Your task to perform on an android device: turn notification dots off Image 0: 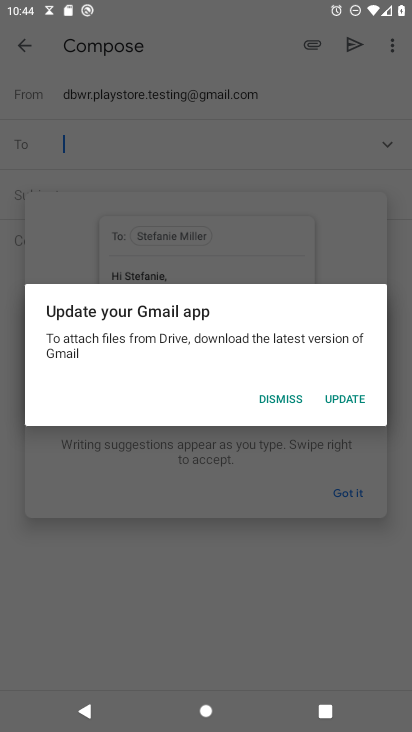
Step 0: press home button
Your task to perform on an android device: turn notification dots off Image 1: 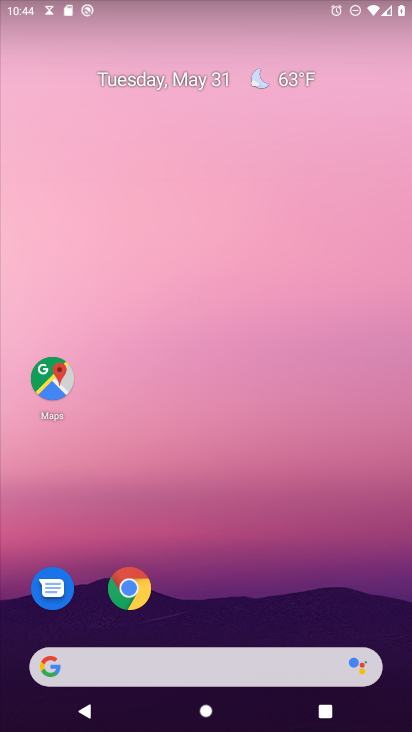
Step 1: drag from (262, 597) to (217, 61)
Your task to perform on an android device: turn notification dots off Image 2: 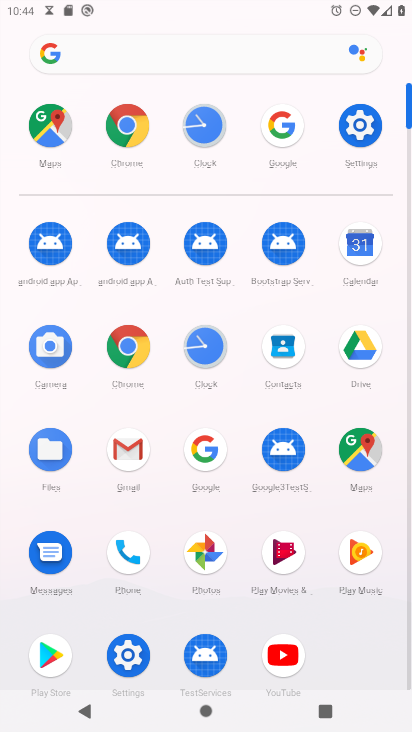
Step 2: click (128, 655)
Your task to perform on an android device: turn notification dots off Image 3: 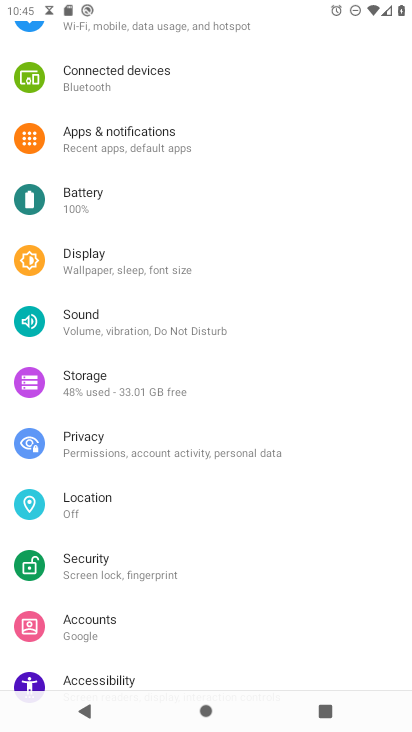
Step 3: drag from (219, 145) to (228, 238)
Your task to perform on an android device: turn notification dots off Image 4: 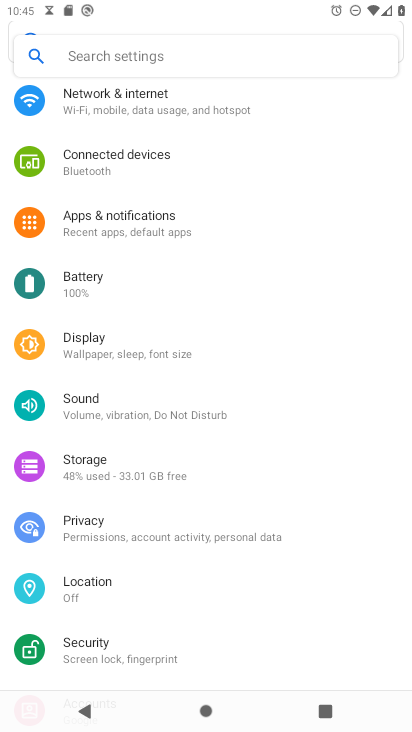
Step 4: drag from (213, 189) to (220, 296)
Your task to perform on an android device: turn notification dots off Image 5: 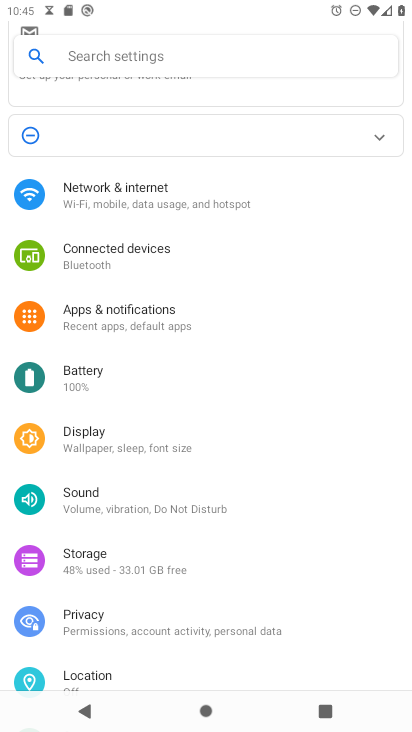
Step 5: click (145, 321)
Your task to perform on an android device: turn notification dots off Image 6: 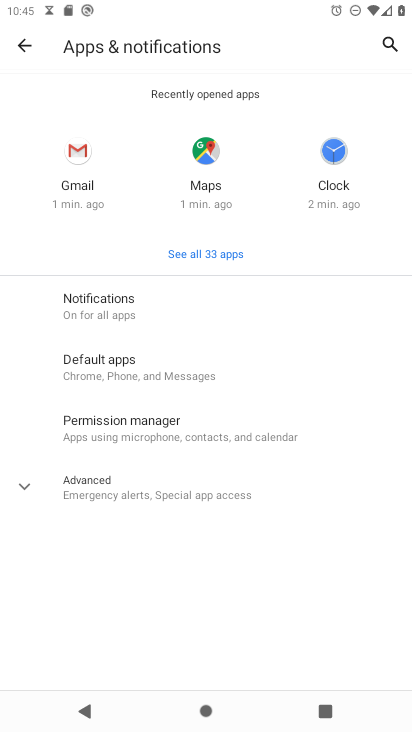
Step 6: click (112, 313)
Your task to perform on an android device: turn notification dots off Image 7: 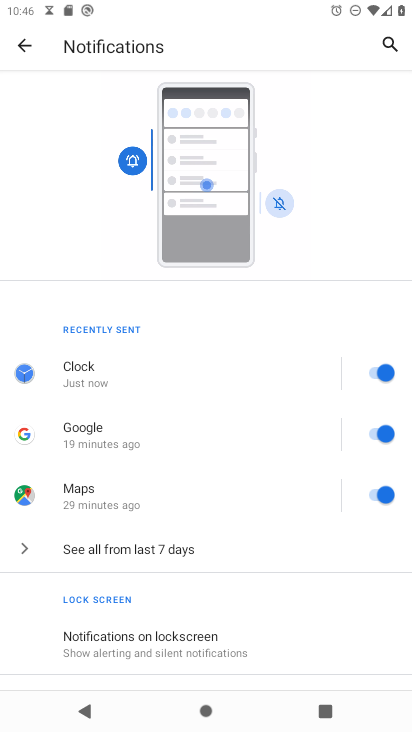
Step 7: drag from (214, 597) to (287, 463)
Your task to perform on an android device: turn notification dots off Image 8: 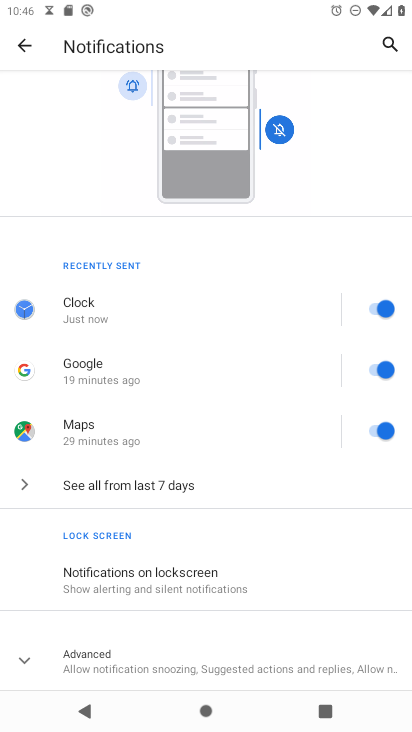
Step 8: click (174, 671)
Your task to perform on an android device: turn notification dots off Image 9: 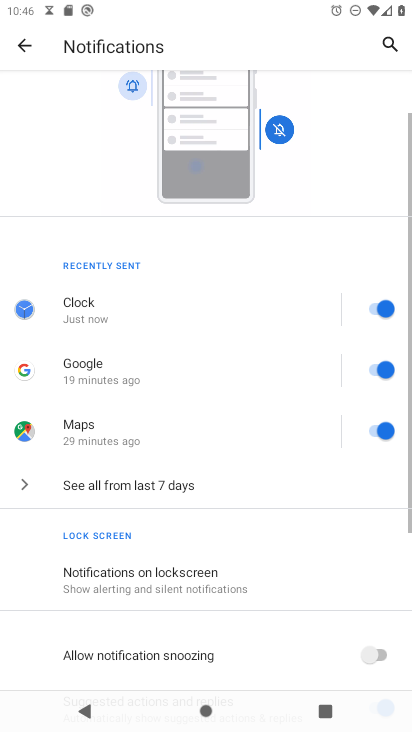
Step 9: task complete